Your task to perform on an android device: Go to Amazon Image 0: 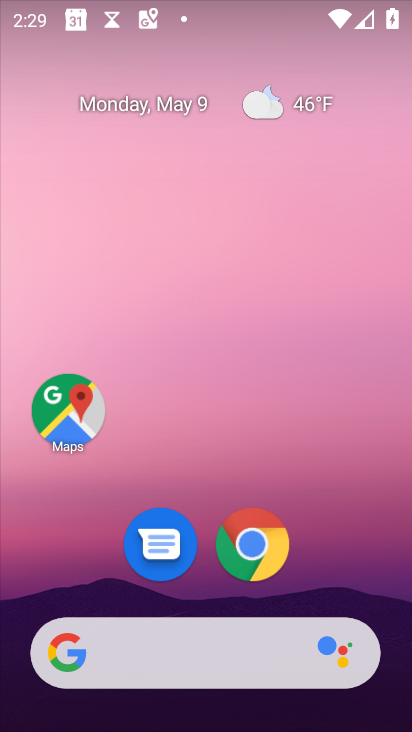
Step 0: click (265, 560)
Your task to perform on an android device: Go to Amazon Image 1: 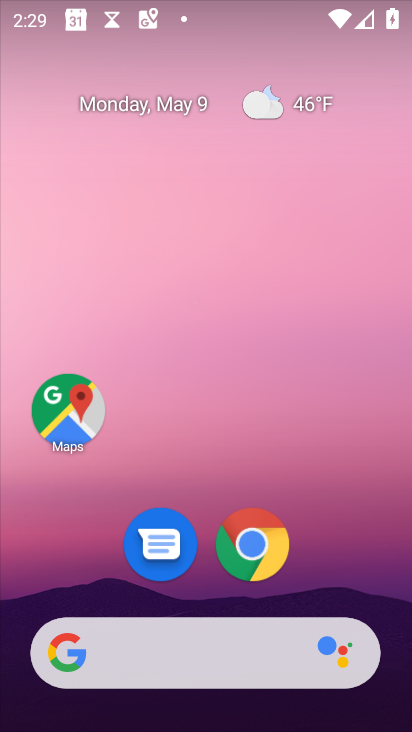
Step 1: click (252, 547)
Your task to perform on an android device: Go to Amazon Image 2: 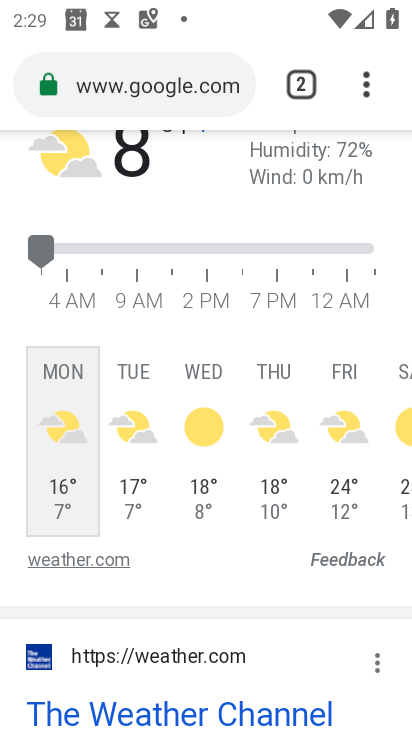
Step 2: click (309, 82)
Your task to perform on an android device: Go to Amazon Image 3: 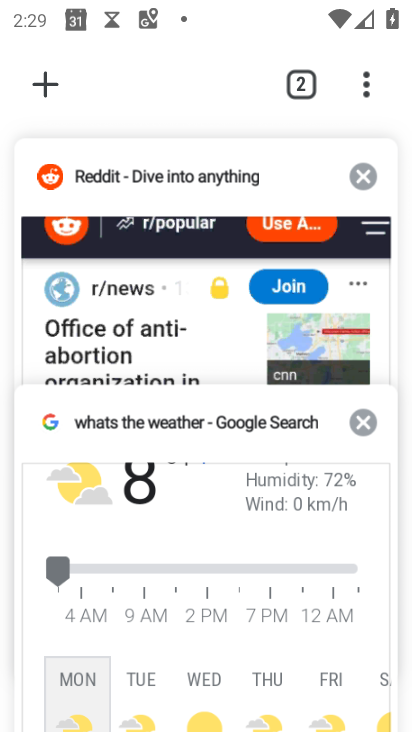
Step 3: click (47, 84)
Your task to perform on an android device: Go to Amazon Image 4: 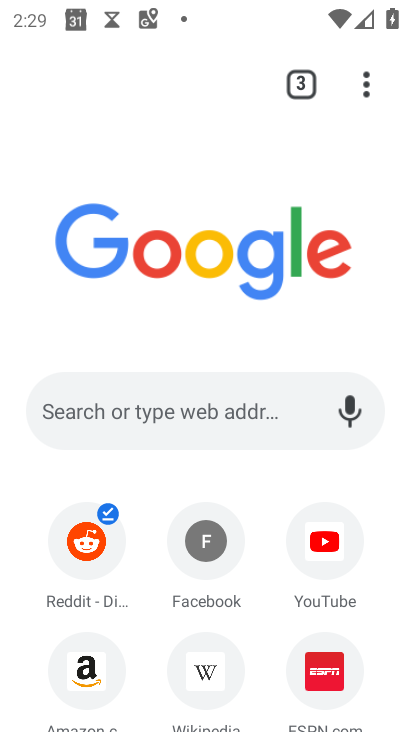
Step 4: click (98, 686)
Your task to perform on an android device: Go to Amazon Image 5: 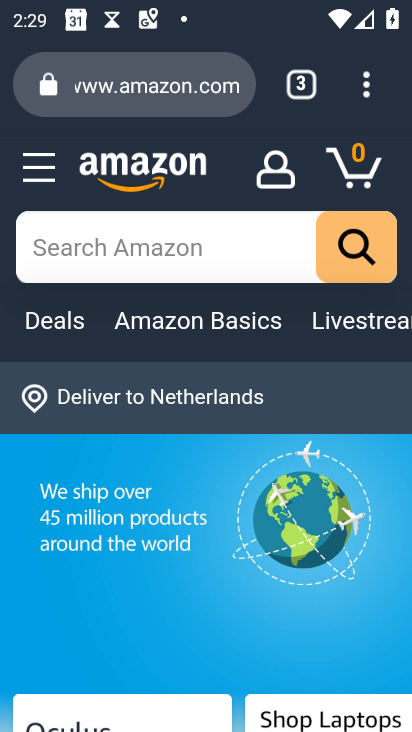
Step 5: task complete